Your task to perform on an android device: allow notifications from all sites in the chrome app Image 0: 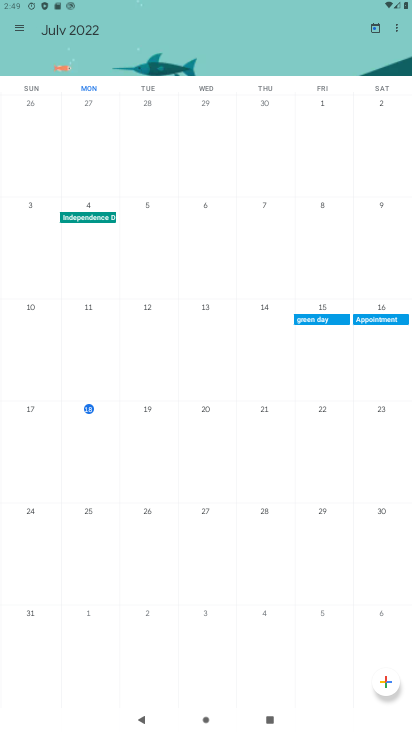
Step 0: press home button
Your task to perform on an android device: allow notifications from all sites in the chrome app Image 1: 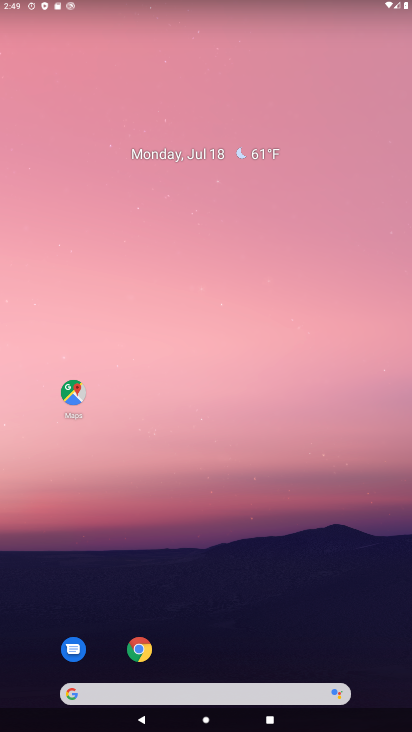
Step 1: click (145, 641)
Your task to perform on an android device: allow notifications from all sites in the chrome app Image 2: 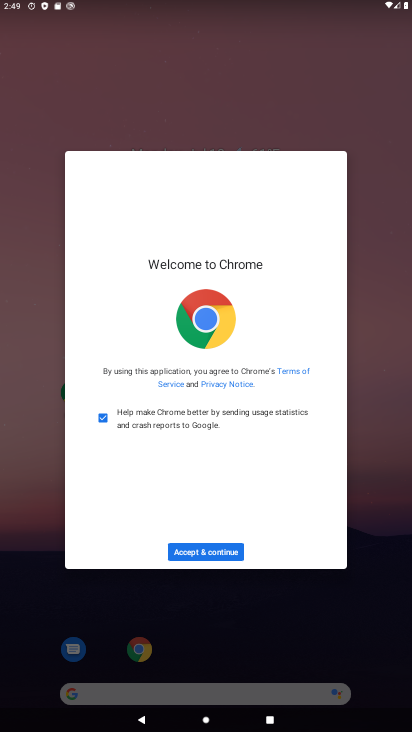
Step 2: click (212, 549)
Your task to perform on an android device: allow notifications from all sites in the chrome app Image 3: 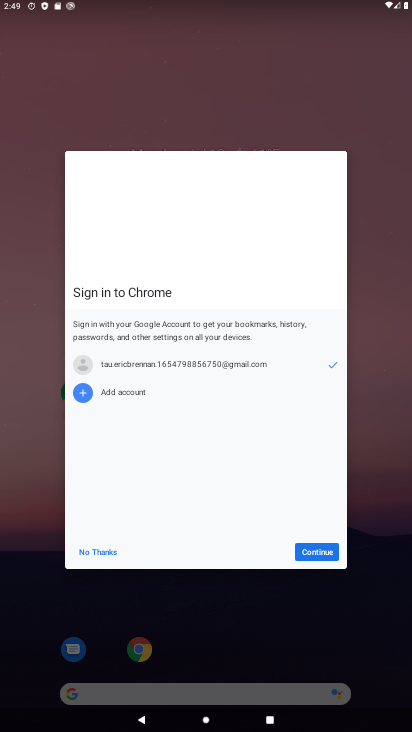
Step 3: click (304, 543)
Your task to perform on an android device: allow notifications from all sites in the chrome app Image 4: 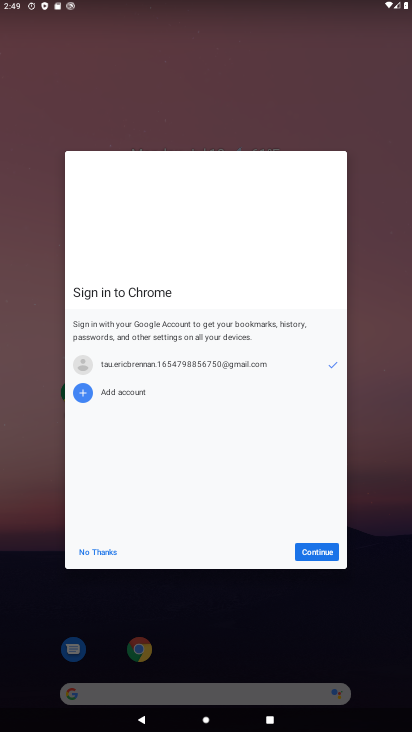
Step 4: click (312, 542)
Your task to perform on an android device: allow notifications from all sites in the chrome app Image 5: 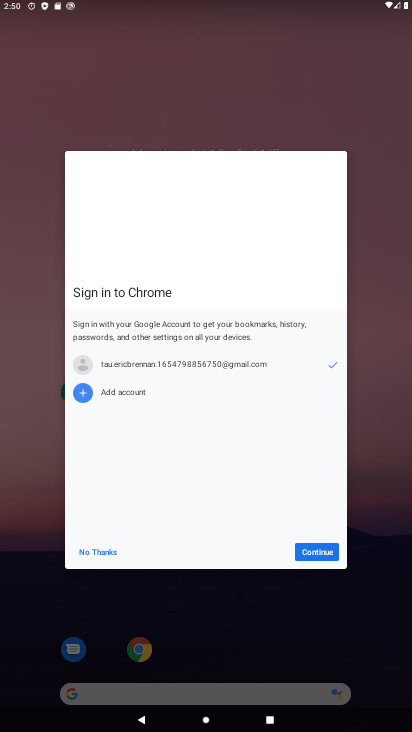
Step 5: click (320, 552)
Your task to perform on an android device: allow notifications from all sites in the chrome app Image 6: 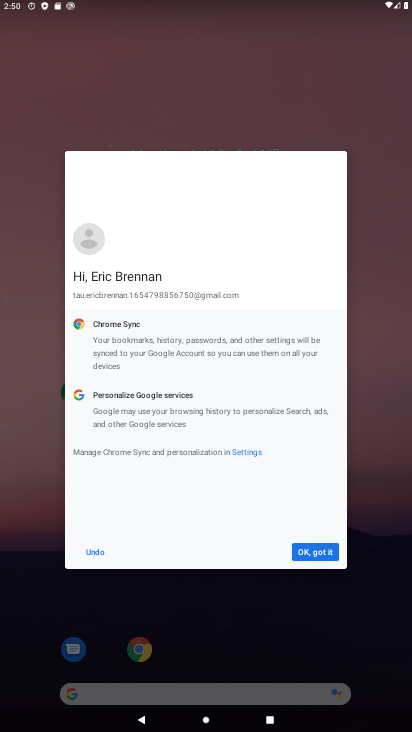
Step 6: click (327, 553)
Your task to perform on an android device: allow notifications from all sites in the chrome app Image 7: 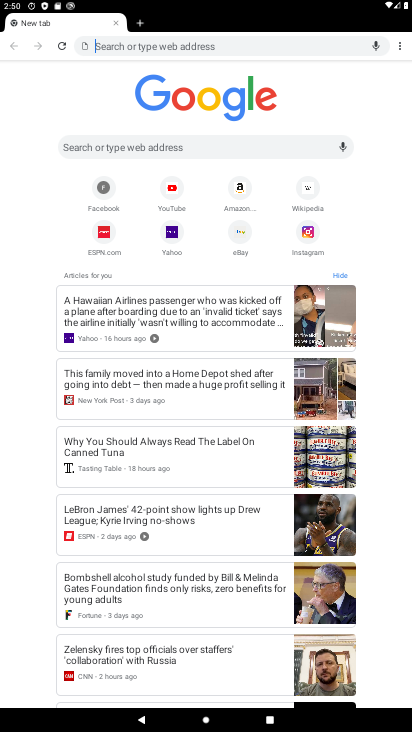
Step 7: click (404, 45)
Your task to perform on an android device: allow notifications from all sites in the chrome app Image 8: 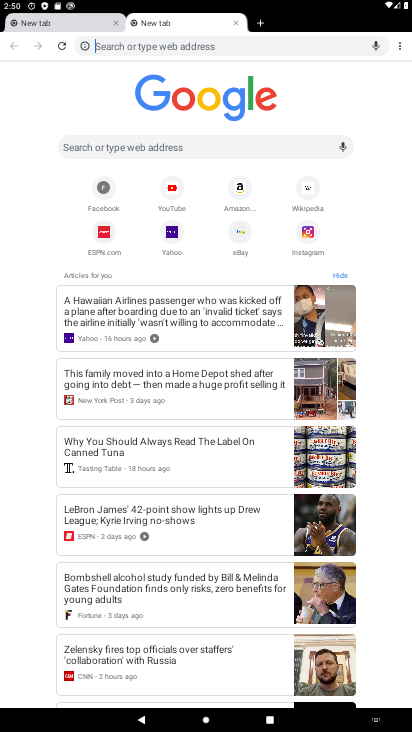
Step 8: click (396, 42)
Your task to perform on an android device: allow notifications from all sites in the chrome app Image 9: 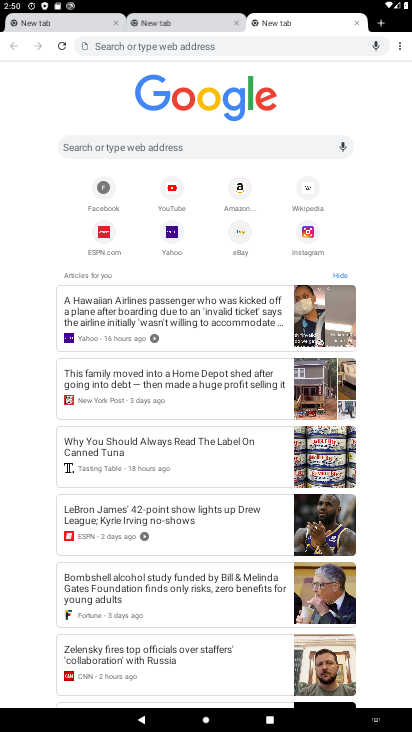
Step 9: click (398, 46)
Your task to perform on an android device: allow notifications from all sites in the chrome app Image 10: 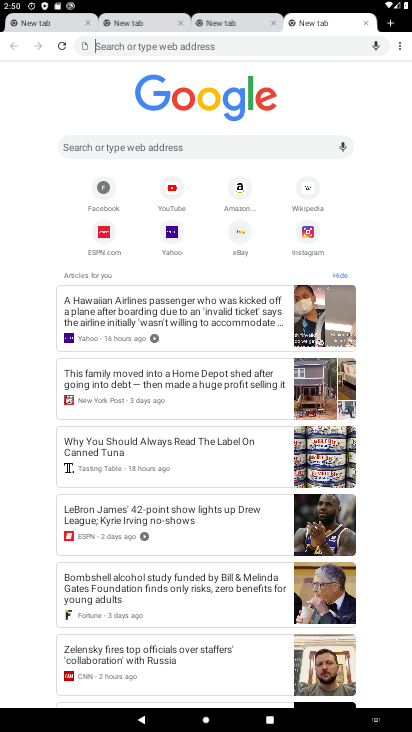
Step 10: task complete